Your task to perform on an android device: Open calendar and show me the second week of next month Image 0: 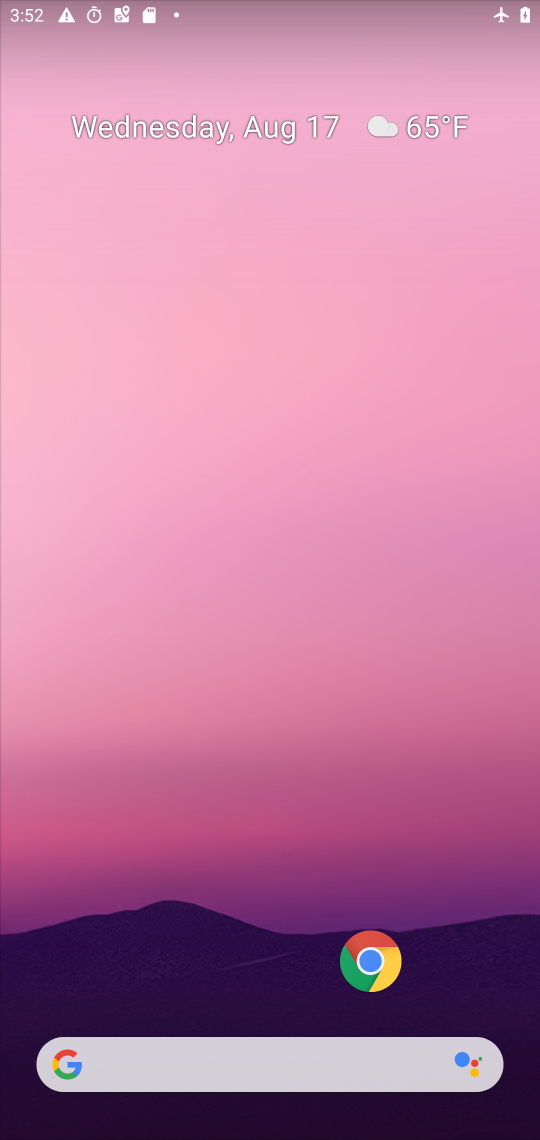
Step 0: drag from (286, 943) to (291, 176)
Your task to perform on an android device: Open calendar and show me the second week of next month Image 1: 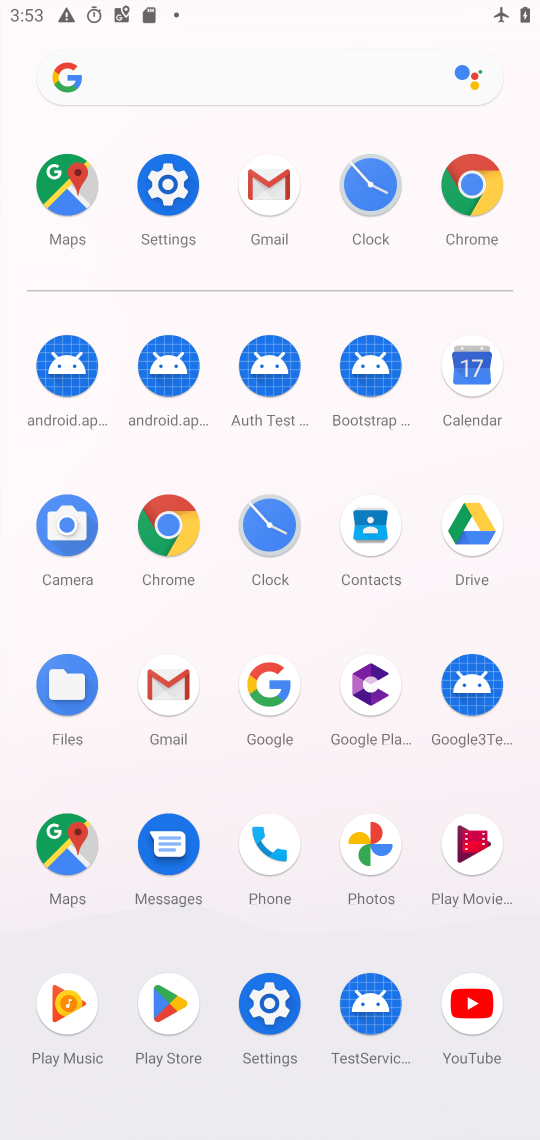
Step 1: click (493, 365)
Your task to perform on an android device: Open calendar and show me the second week of next month Image 2: 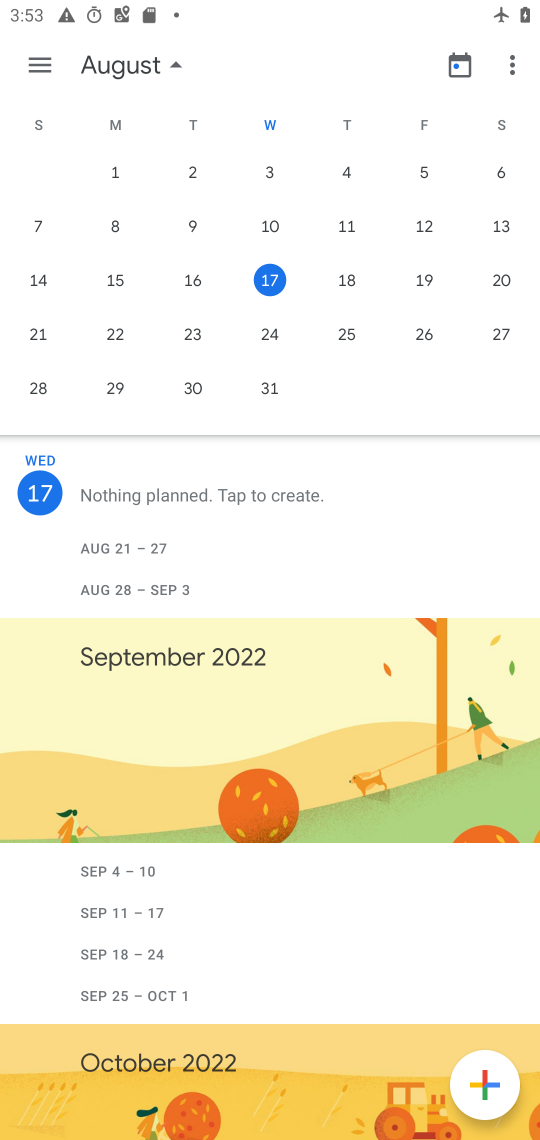
Step 2: drag from (437, 243) to (2, 222)
Your task to perform on an android device: Open calendar and show me the second week of next month Image 3: 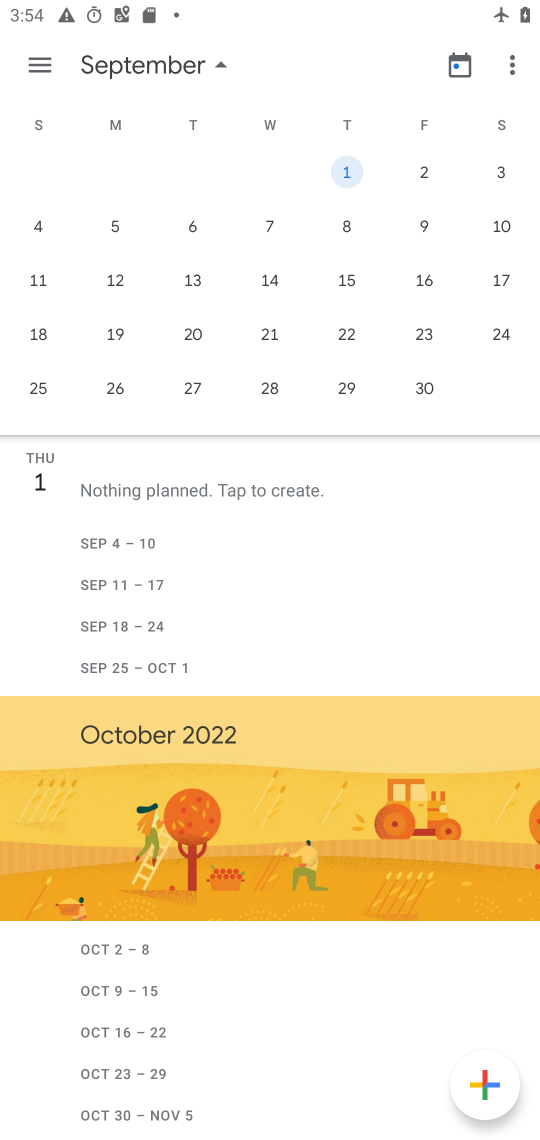
Step 3: click (347, 227)
Your task to perform on an android device: Open calendar and show me the second week of next month Image 4: 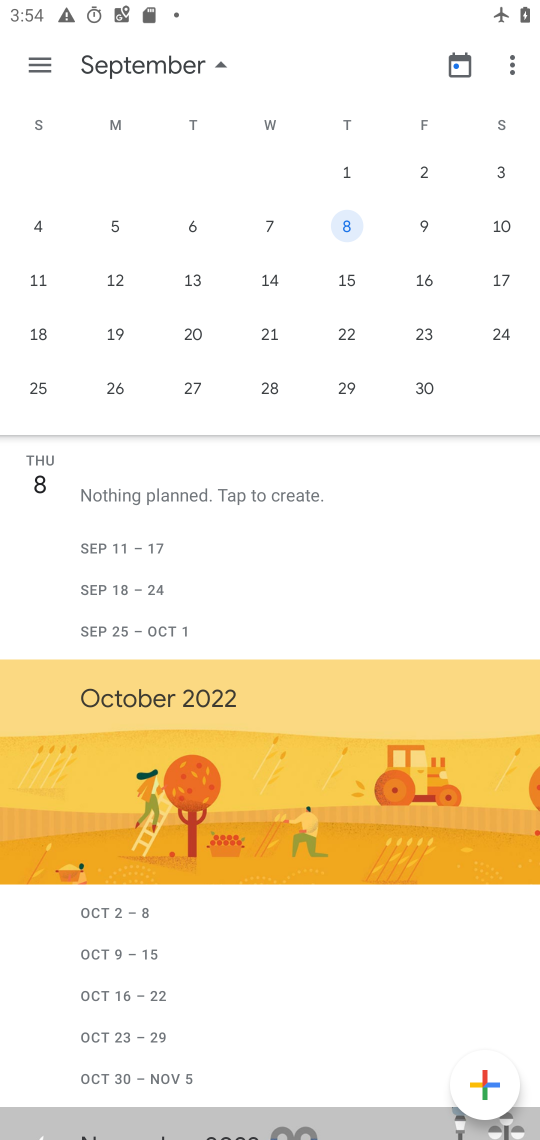
Step 4: task complete